Your task to perform on an android device: Open location settings Image 0: 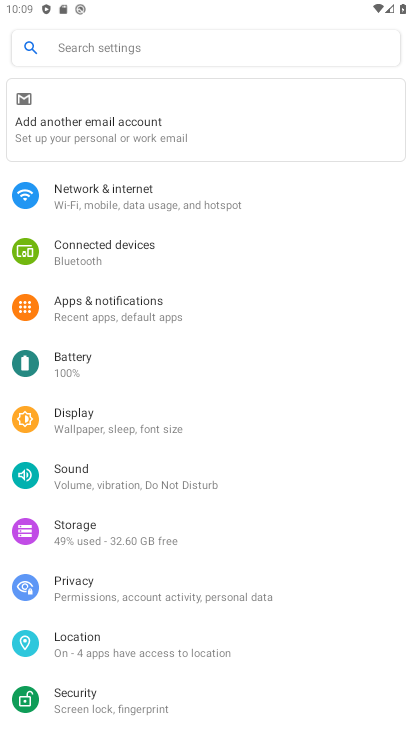
Step 0: click (88, 642)
Your task to perform on an android device: Open location settings Image 1: 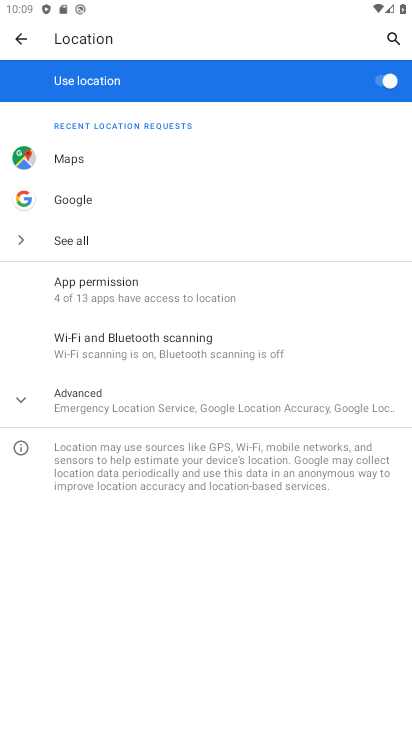
Step 1: task complete